Your task to perform on an android device: Show me popular videos on Youtube Image 0: 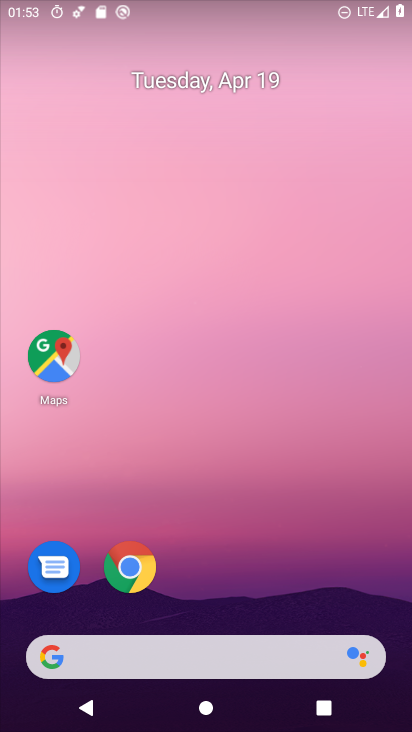
Step 0: drag from (224, 572) to (205, 93)
Your task to perform on an android device: Show me popular videos on Youtube Image 1: 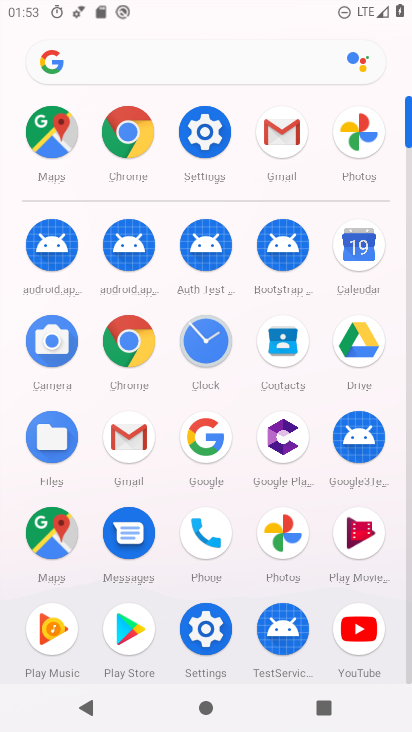
Step 1: click (368, 625)
Your task to perform on an android device: Show me popular videos on Youtube Image 2: 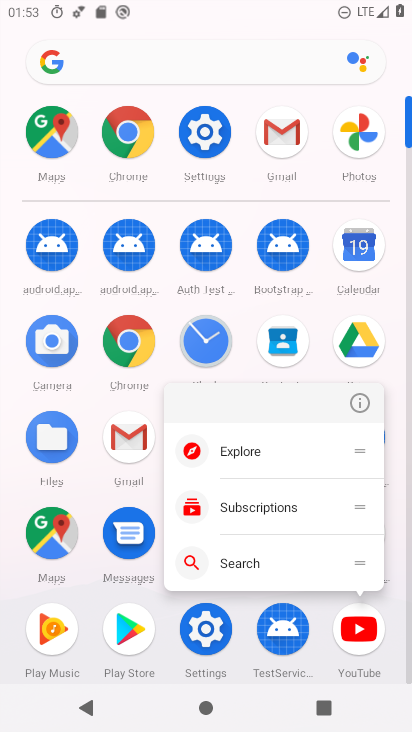
Step 2: click (360, 635)
Your task to perform on an android device: Show me popular videos on Youtube Image 3: 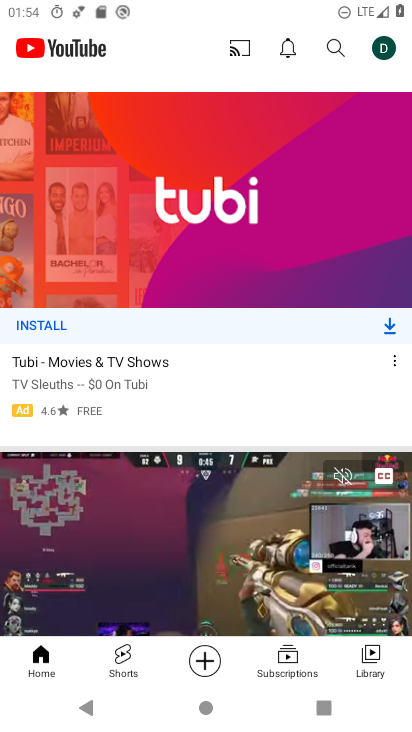
Step 3: click (119, 646)
Your task to perform on an android device: Show me popular videos on Youtube Image 4: 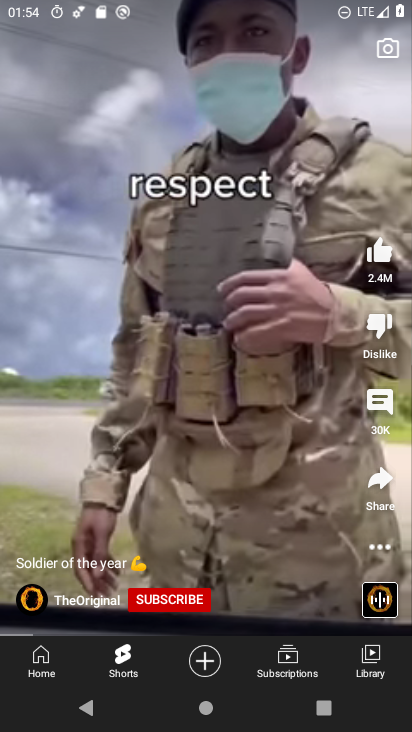
Step 4: click (270, 655)
Your task to perform on an android device: Show me popular videos on Youtube Image 5: 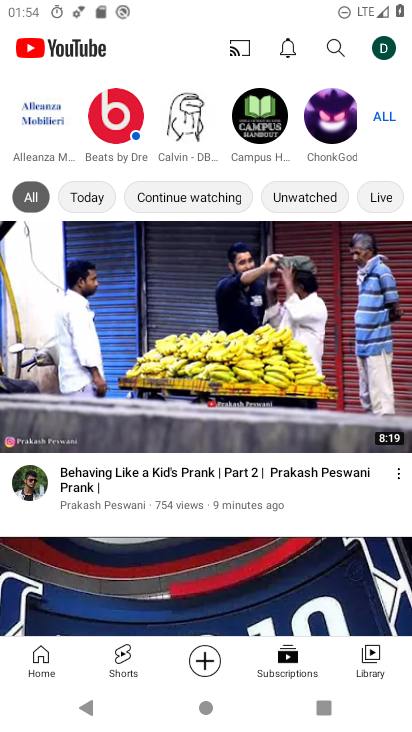
Step 5: click (382, 668)
Your task to perform on an android device: Show me popular videos on Youtube Image 6: 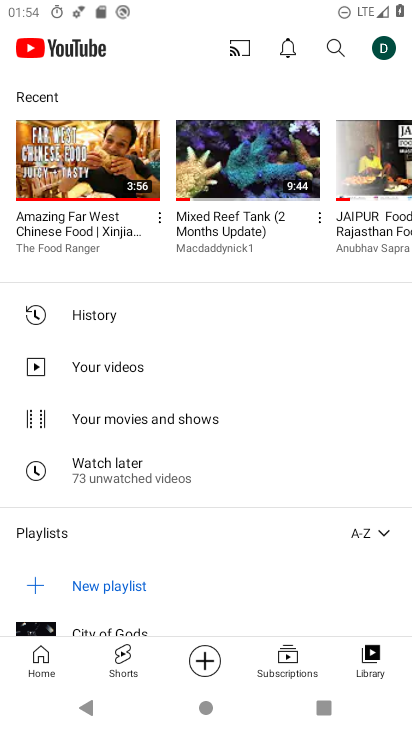
Step 6: click (386, 49)
Your task to perform on an android device: Show me popular videos on Youtube Image 7: 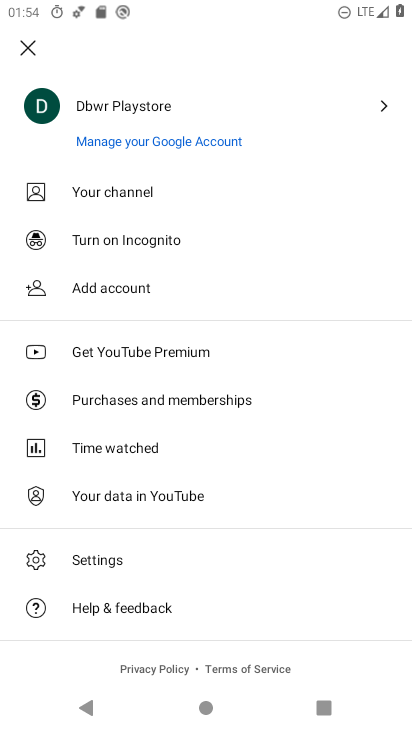
Step 7: click (21, 43)
Your task to perform on an android device: Show me popular videos on Youtube Image 8: 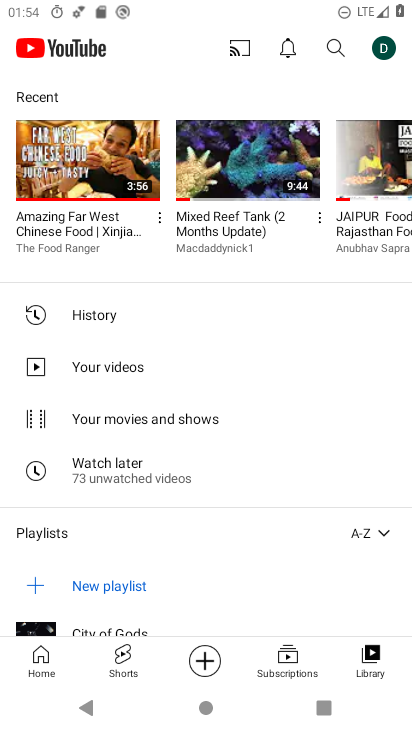
Step 8: click (26, 60)
Your task to perform on an android device: Show me popular videos on Youtube Image 9: 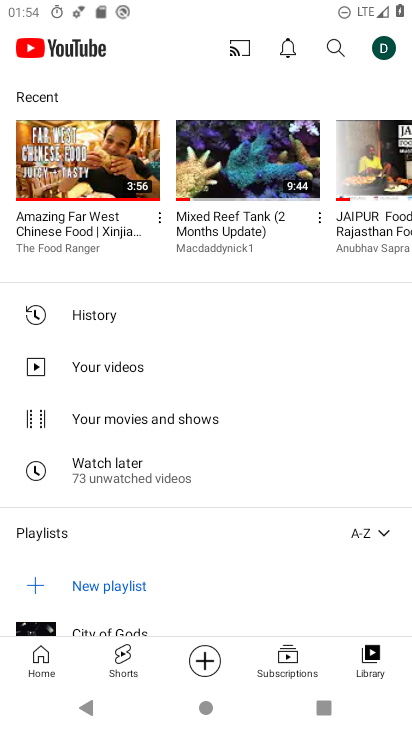
Step 9: click (26, 54)
Your task to perform on an android device: Show me popular videos on Youtube Image 10: 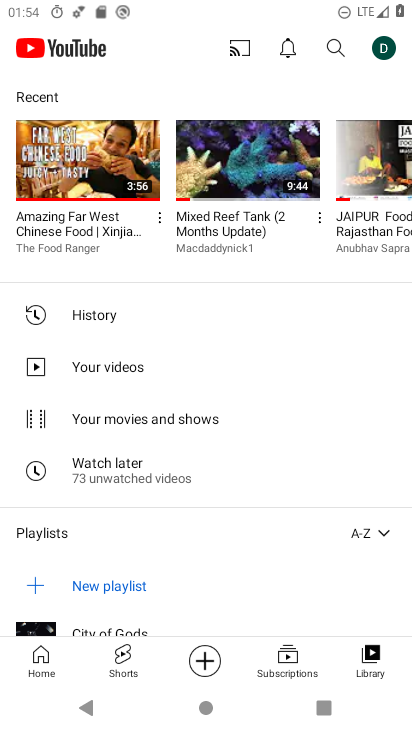
Step 10: click (50, 663)
Your task to perform on an android device: Show me popular videos on Youtube Image 11: 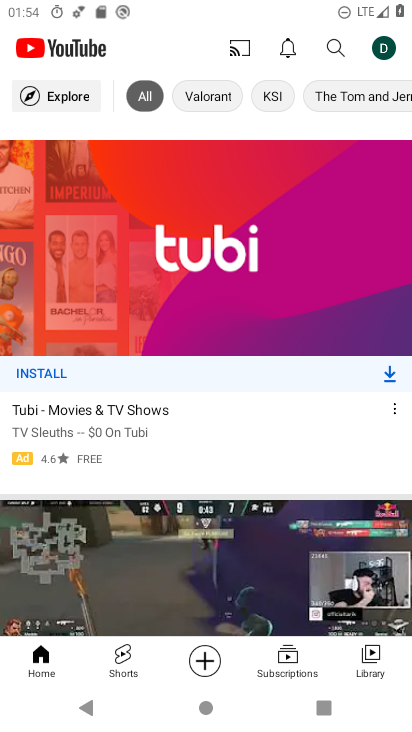
Step 11: click (68, 91)
Your task to perform on an android device: Show me popular videos on Youtube Image 12: 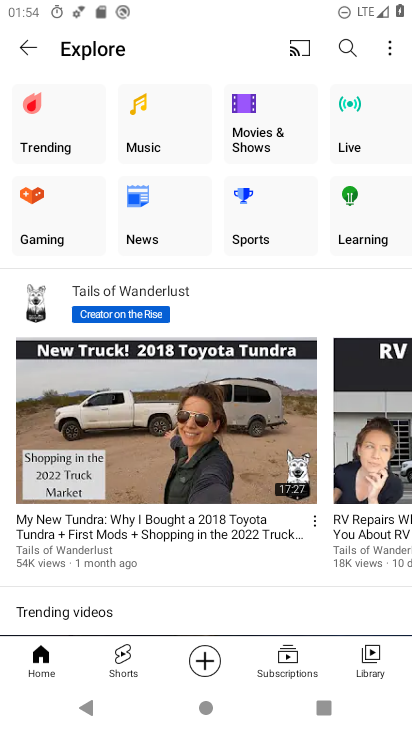
Step 12: click (49, 118)
Your task to perform on an android device: Show me popular videos on Youtube Image 13: 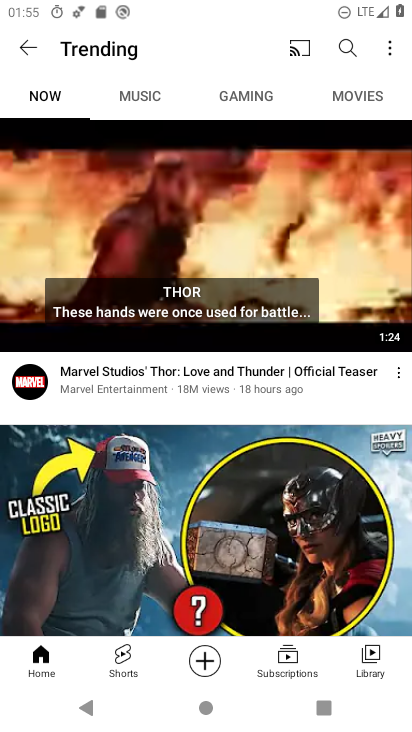
Step 13: click (25, 47)
Your task to perform on an android device: Show me popular videos on Youtube Image 14: 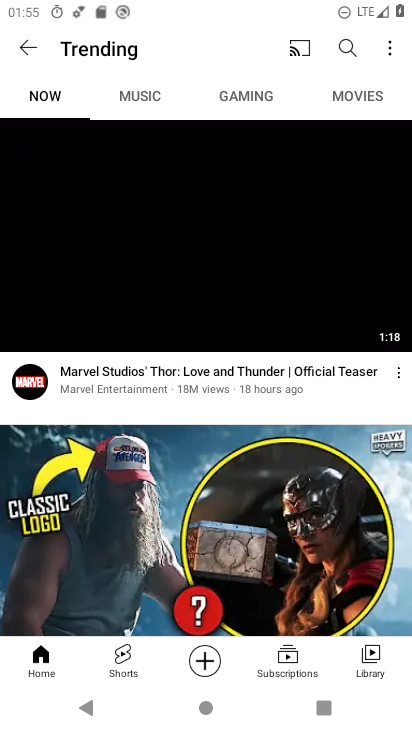
Step 14: task complete